Your task to perform on an android device: What is the recent news? Image 0: 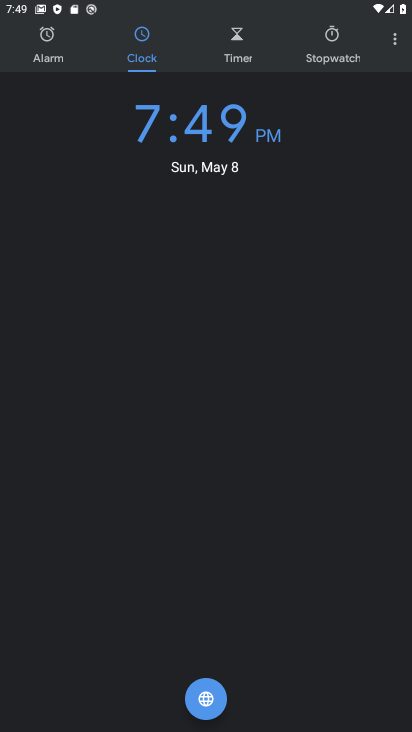
Step 0: drag from (273, 413) to (308, 234)
Your task to perform on an android device: What is the recent news? Image 1: 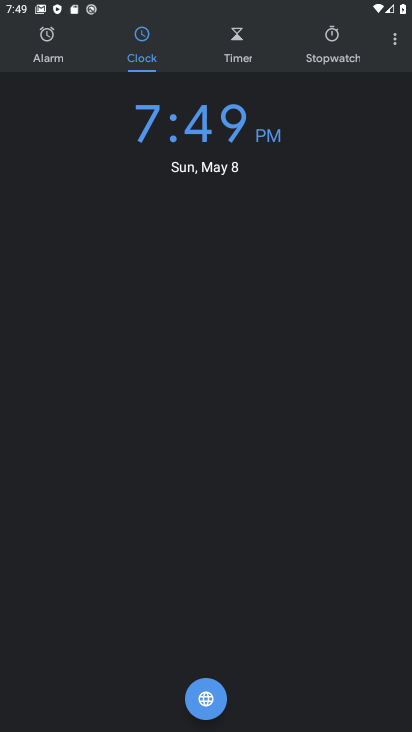
Step 1: press home button
Your task to perform on an android device: What is the recent news? Image 2: 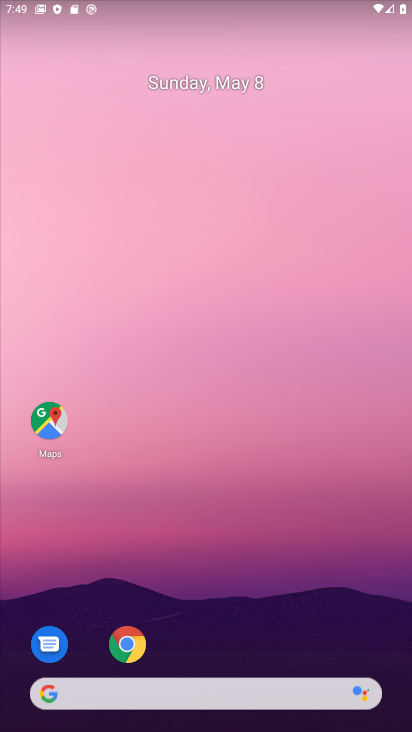
Step 2: click (180, 702)
Your task to perform on an android device: What is the recent news? Image 3: 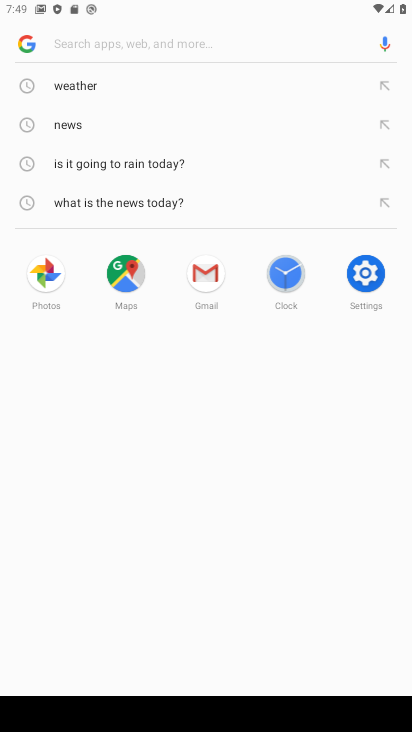
Step 3: click (68, 131)
Your task to perform on an android device: What is the recent news? Image 4: 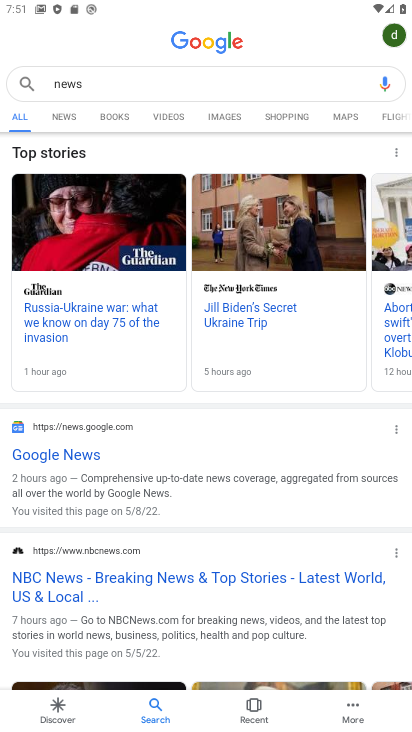
Step 4: drag from (120, 558) to (235, 267)
Your task to perform on an android device: What is the recent news? Image 5: 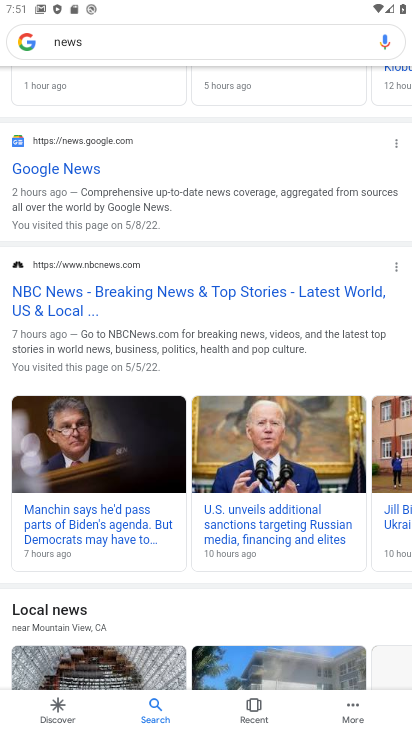
Step 5: click (54, 308)
Your task to perform on an android device: What is the recent news? Image 6: 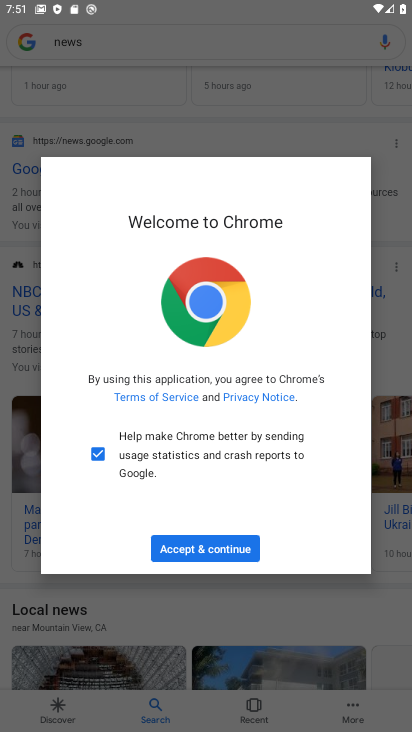
Step 6: click (183, 545)
Your task to perform on an android device: What is the recent news? Image 7: 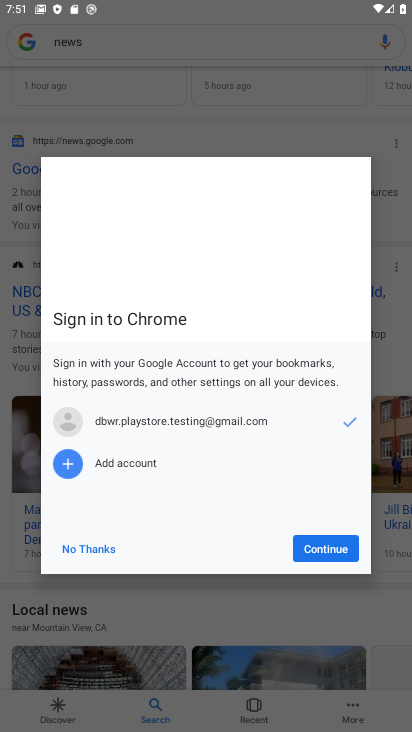
Step 7: click (84, 553)
Your task to perform on an android device: What is the recent news? Image 8: 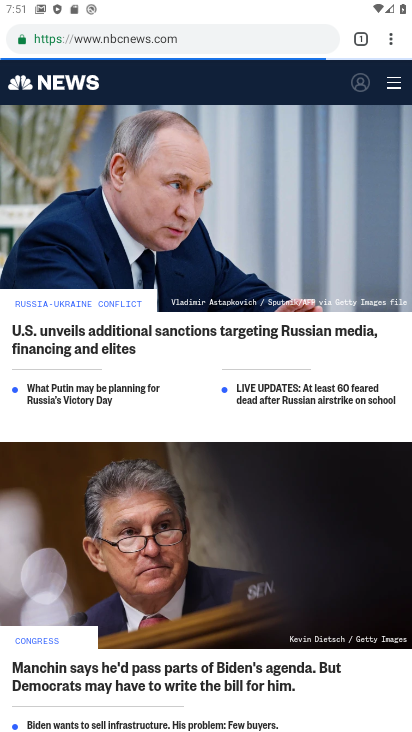
Step 8: task complete